Your task to perform on an android device: Search for flights from Seoul to Mexico city Image 0: 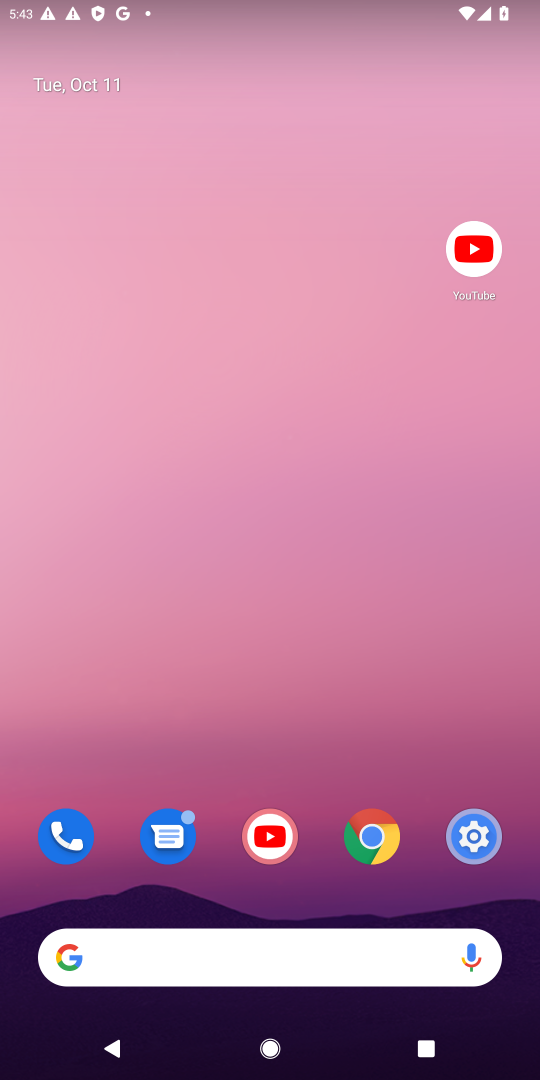
Step 0: click (378, 844)
Your task to perform on an android device: Search for flights from Seoul to Mexico city Image 1: 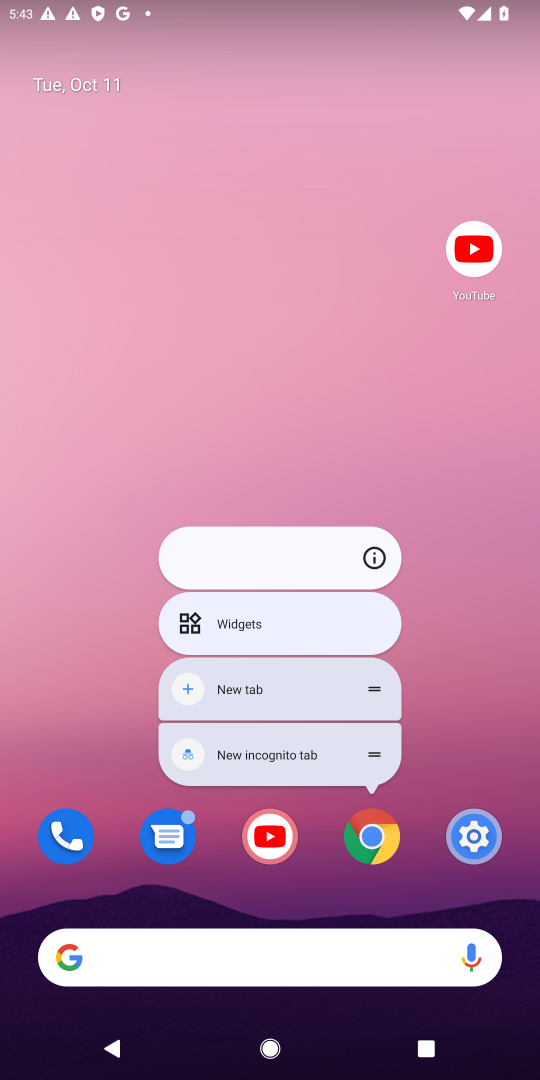
Step 1: click (370, 837)
Your task to perform on an android device: Search for flights from Seoul to Mexico city Image 2: 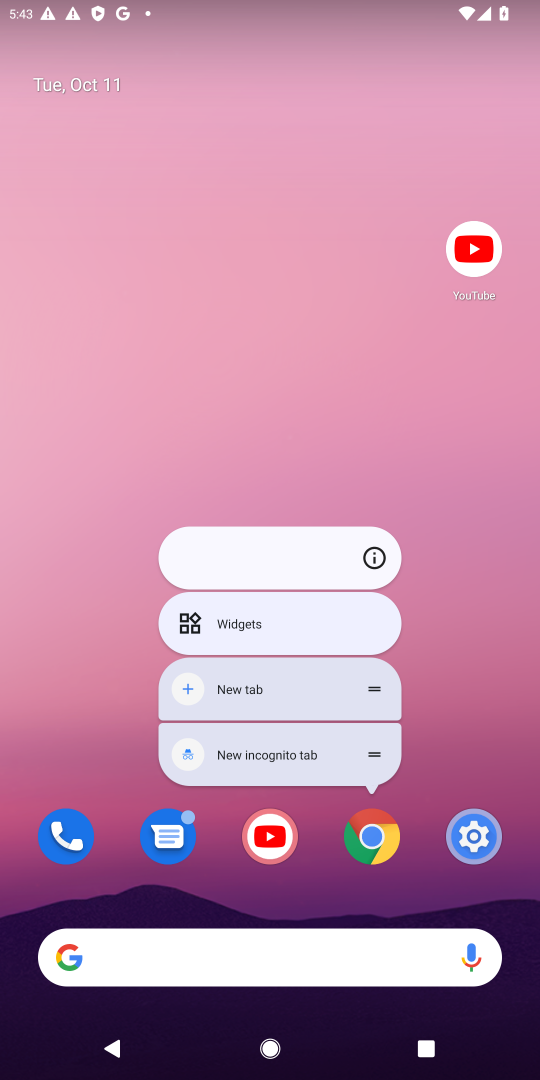
Step 2: click (370, 837)
Your task to perform on an android device: Search for flights from Seoul to Mexico city Image 3: 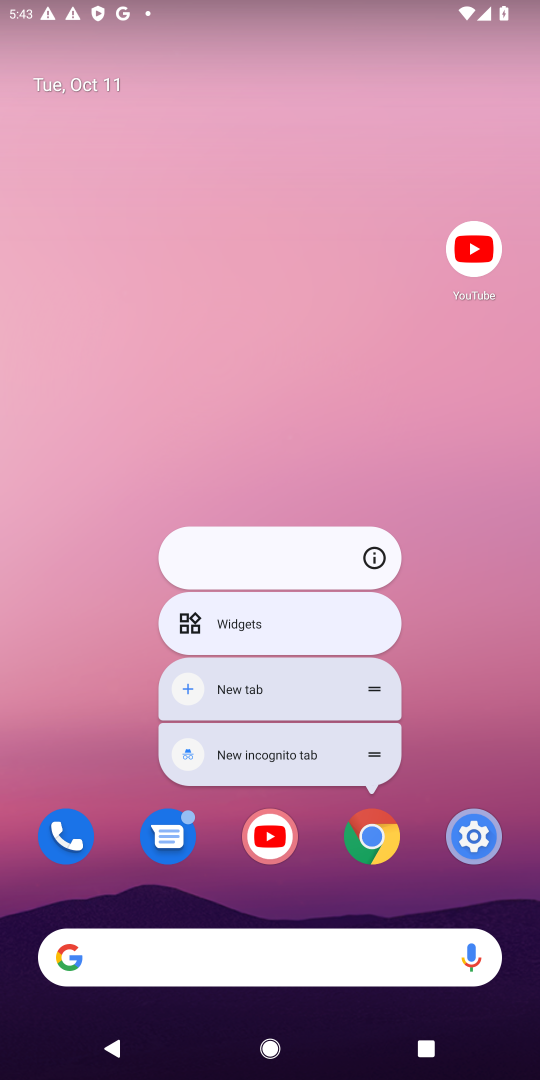
Step 3: click (370, 836)
Your task to perform on an android device: Search for flights from Seoul to Mexico city Image 4: 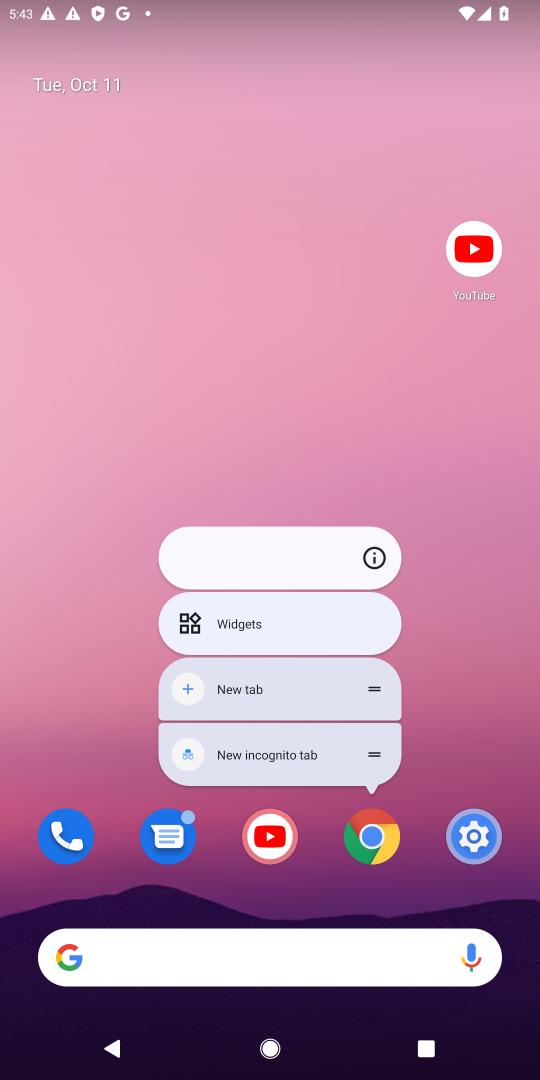
Step 4: click (370, 837)
Your task to perform on an android device: Search for flights from Seoul to Mexico city Image 5: 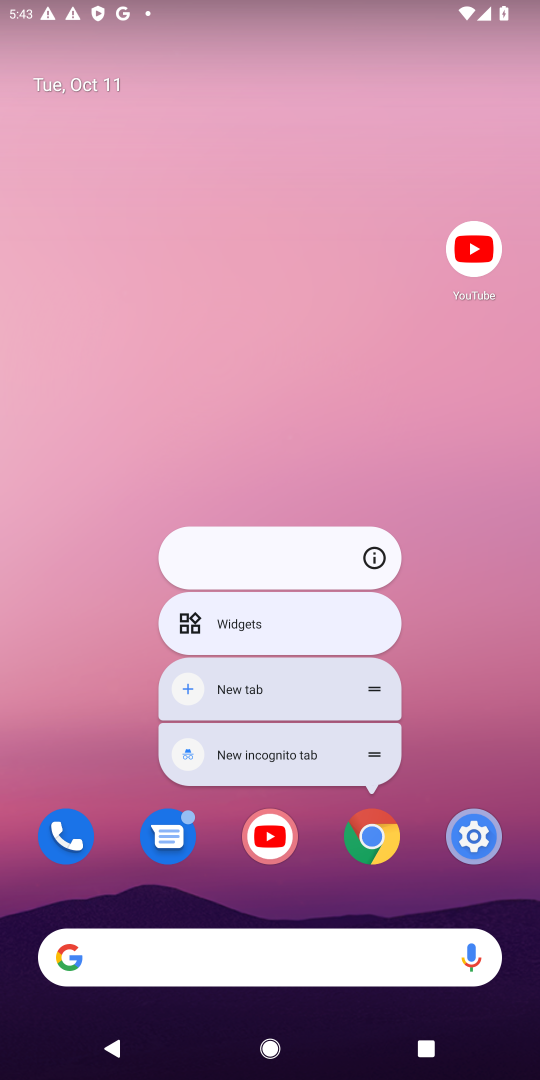
Step 5: click (370, 840)
Your task to perform on an android device: Search for flights from Seoul to Mexico city Image 6: 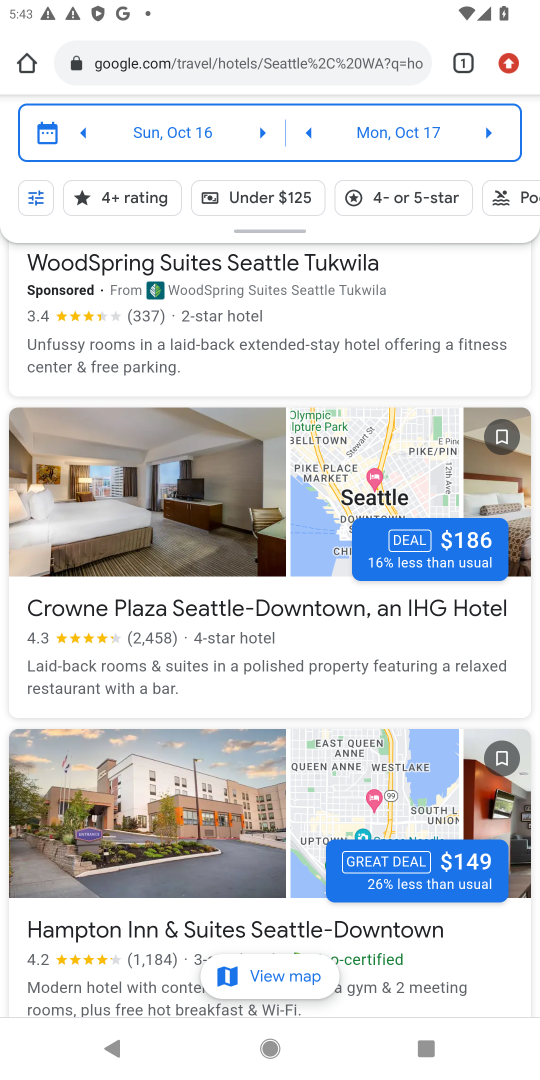
Step 6: click (337, 43)
Your task to perform on an android device: Search for flights from Seoul to Mexico city Image 7: 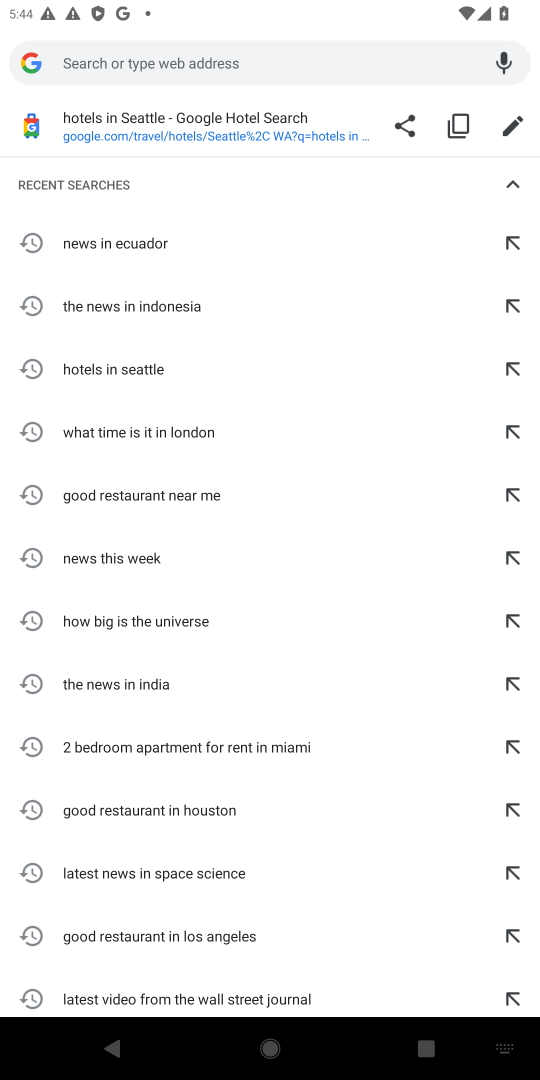
Step 7: type "flights from Seoul to Mexico city"
Your task to perform on an android device: Search for flights from Seoul to Mexico city Image 8: 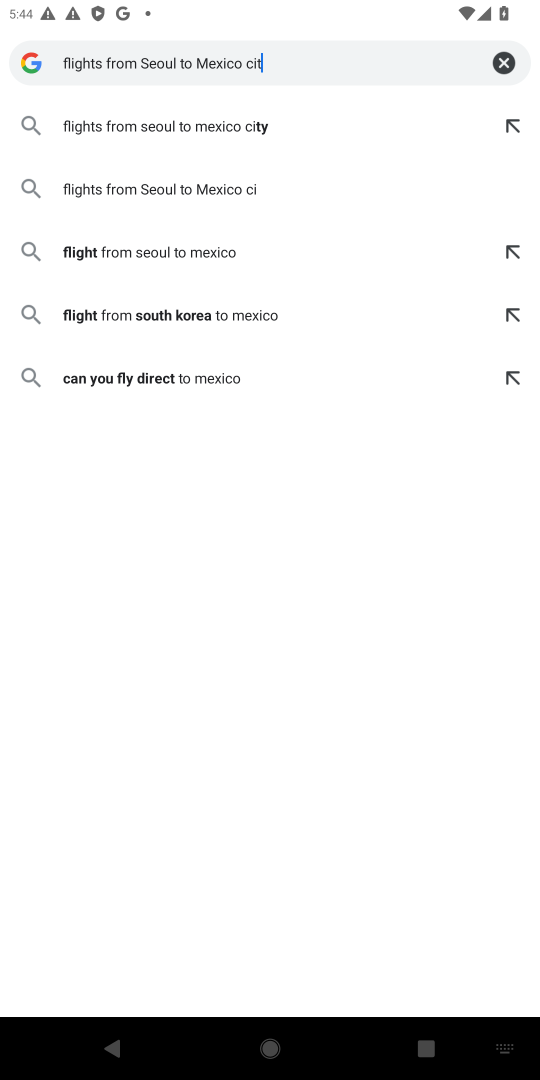
Step 8: press enter
Your task to perform on an android device: Search for flights from Seoul to Mexico city Image 9: 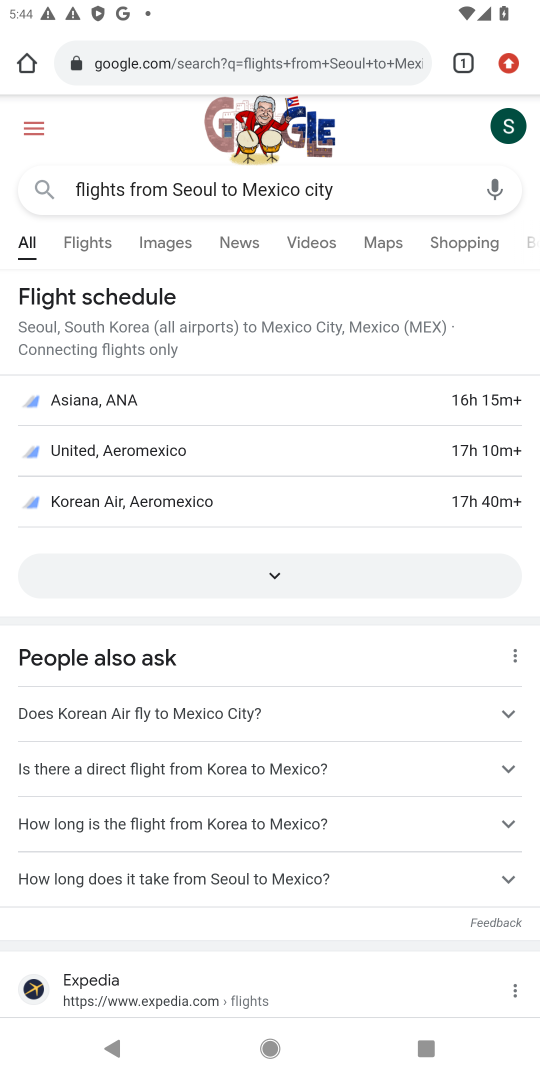
Step 9: click (279, 574)
Your task to perform on an android device: Search for flights from Seoul to Mexico city Image 10: 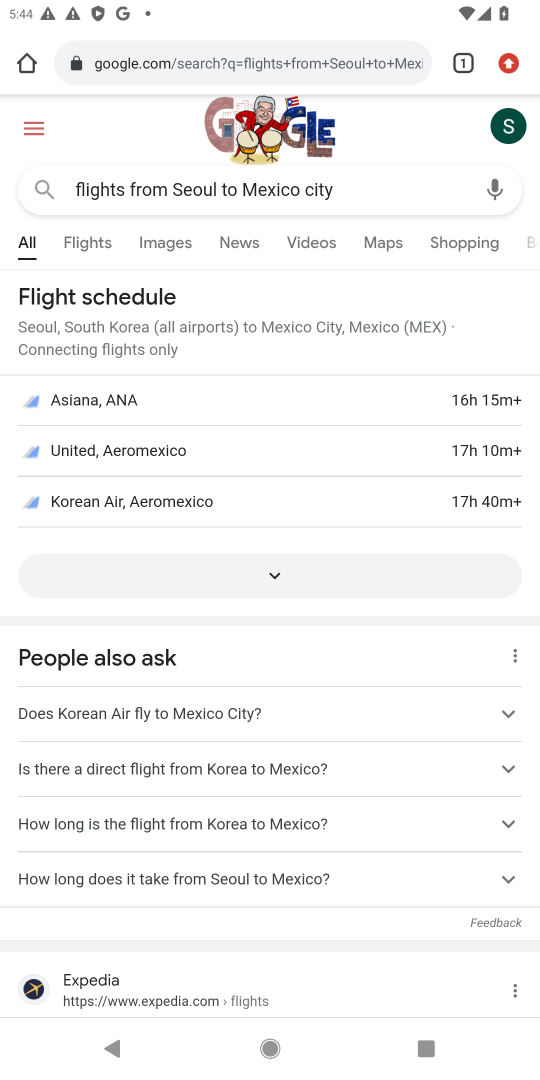
Step 10: click (274, 571)
Your task to perform on an android device: Search for flights from Seoul to Mexico city Image 11: 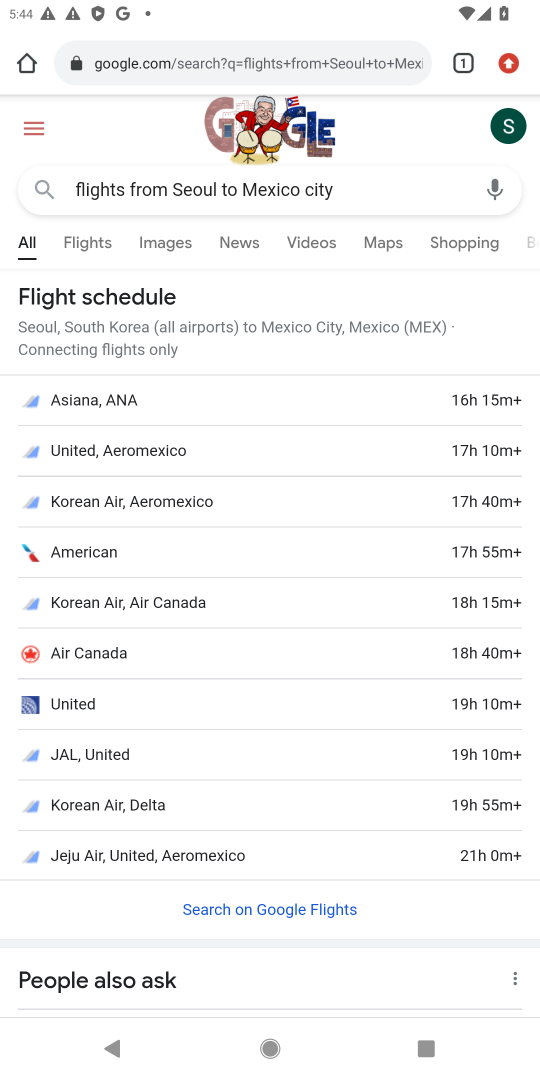
Step 11: task complete